Your task to perform on an android device: Go to Android settings Image 0: 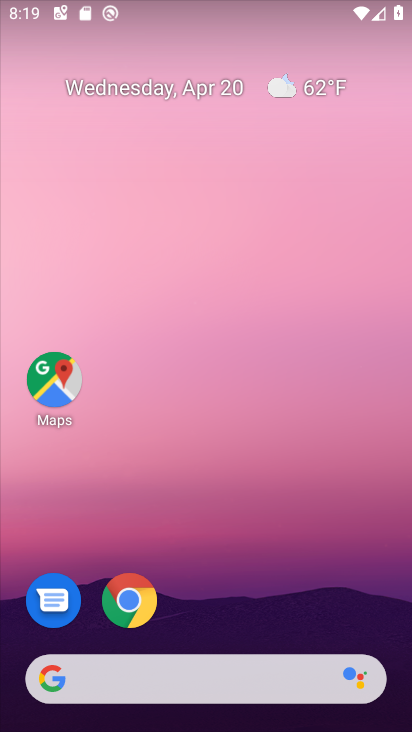
Step 0: drag from (236, 450) to (227, 97)
Your task to perform on an android device: Go to Android settings Image 1: 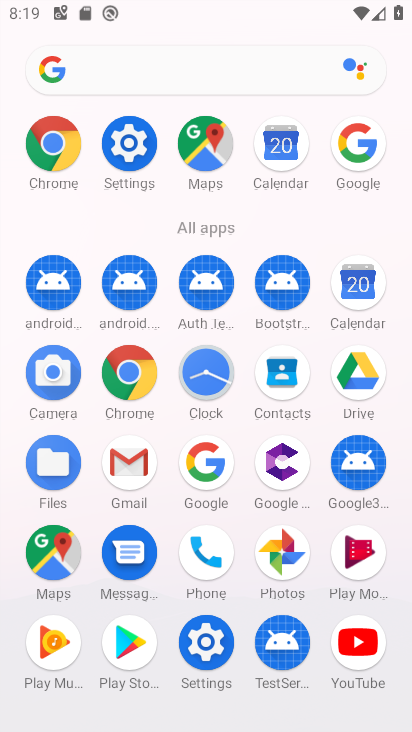
Step 1: click (127, 149)
Your task to perform on an android device: Go to Android settings Image 2: 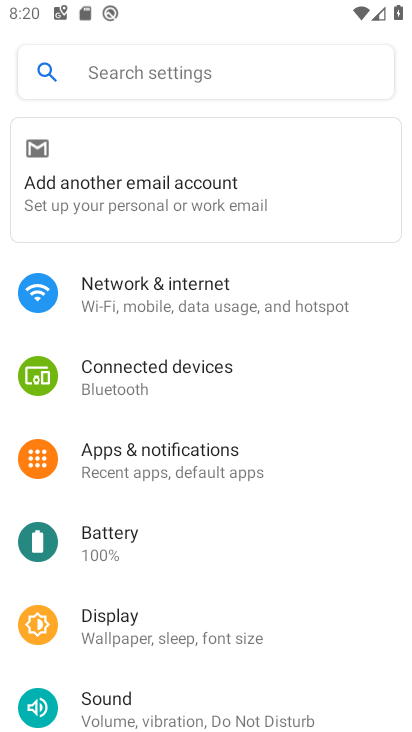
Step 2: drag from (223, 641) to (219, 200)
Your task to perform on an android device: Go to Android settings Image 3: 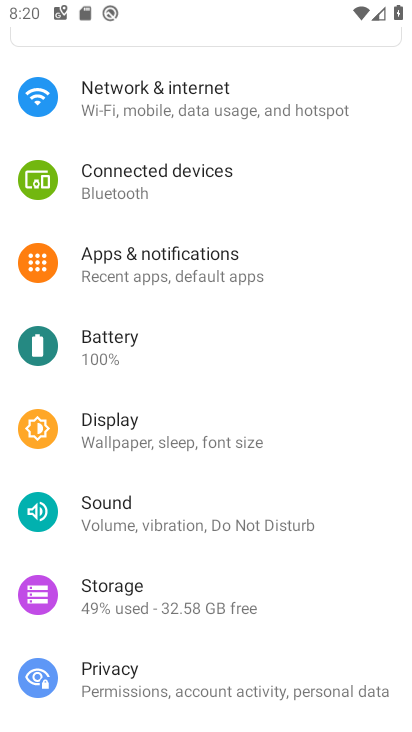
Step 3: drag from (186, 657) to (222, 88)
Your task to perform on an android device: Go to Android settings Image 4: 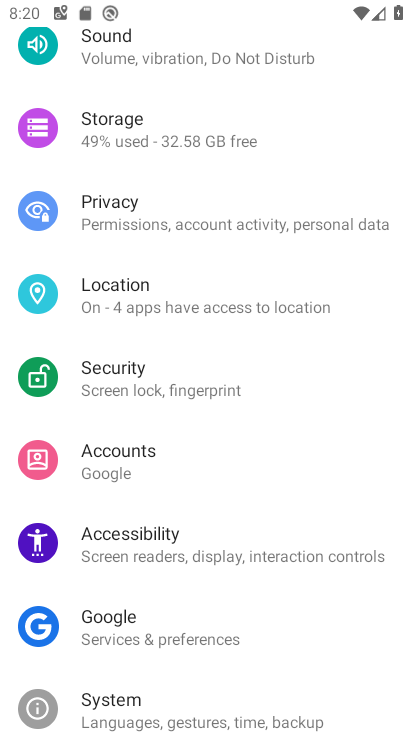
Step 4: drag from (209, 663) to (230, 104)
Your task to perform on an android device: Go to Android settings Image 5: 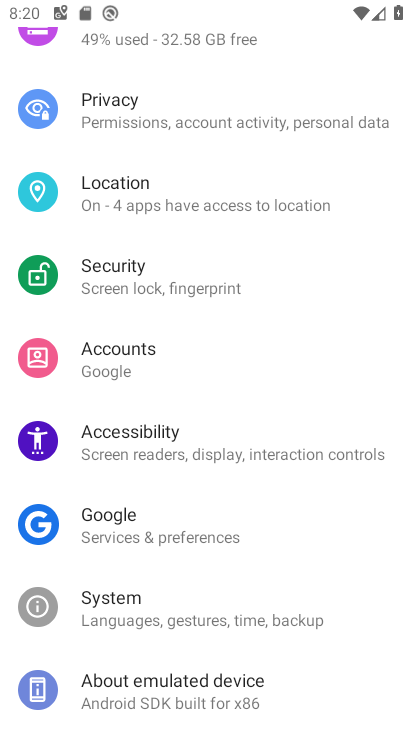
Step 5: click (164, 685)
Your task to perform on an android device: Go to Android settings Image 6: 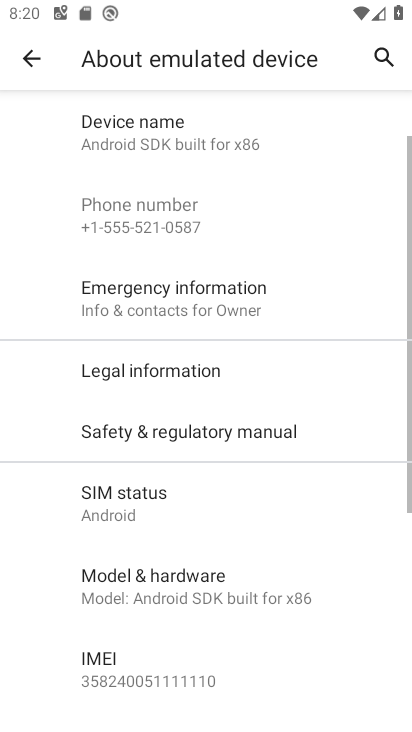
Step 6: drag from (194, 603) to (189, 283)
Your task to perform on an android device: Go to Android settings Image 7: 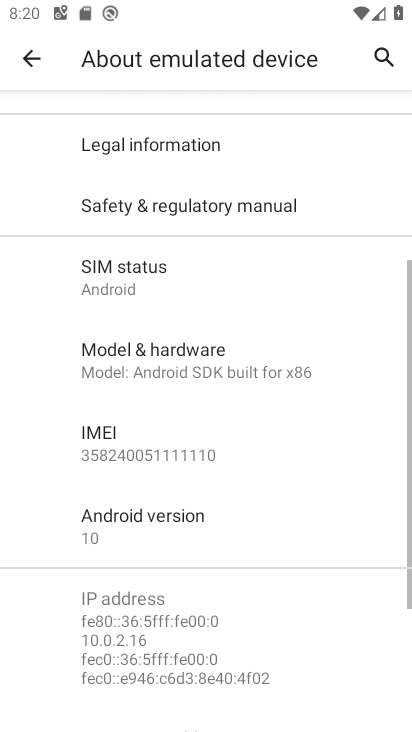
Step 7: click (164, 531)
Your task to perform on an android device: Go to Android settings Image 8: 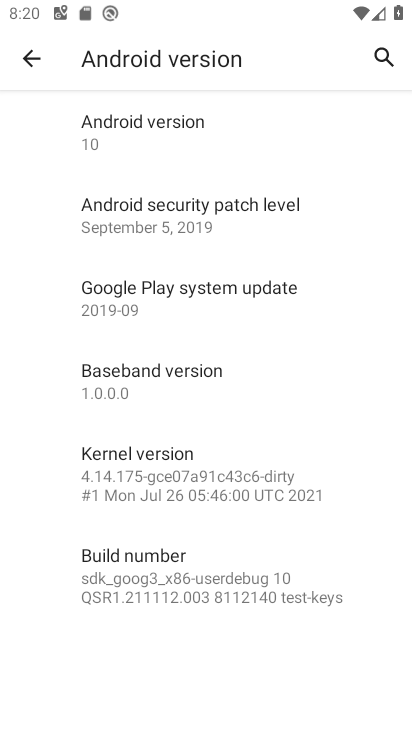
Step 8: task complete